Your task to perform on an android device: change your default location settings in chrome Image 0: 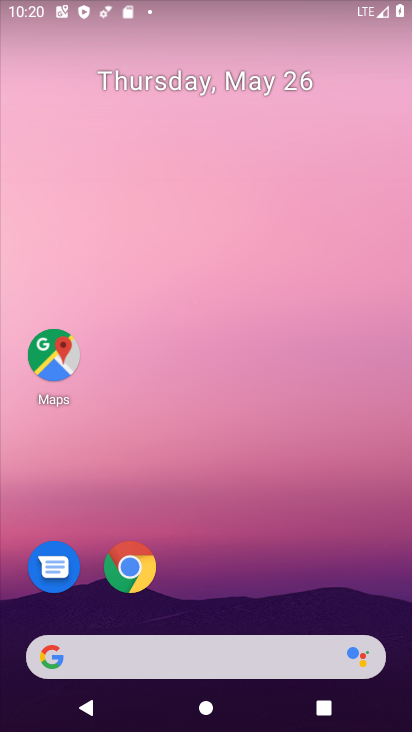
Step 0: click (123, 568)
Your task to perform on an android device: change your default location settings in chrome Image 1: 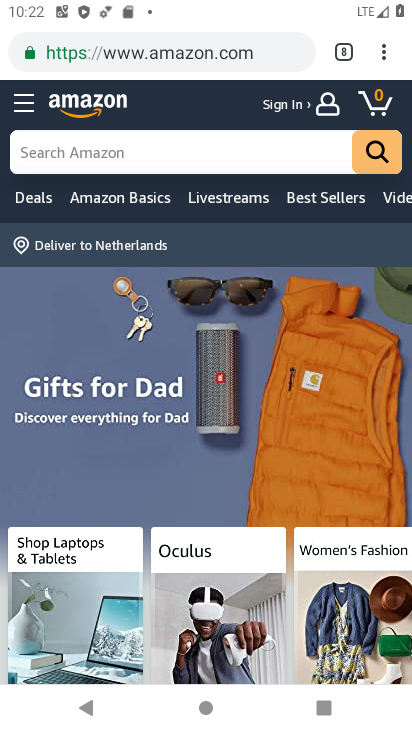
Step 1: click (381, 46)
Your task to perform on an android device: change your default location settings in chrome Image 2: 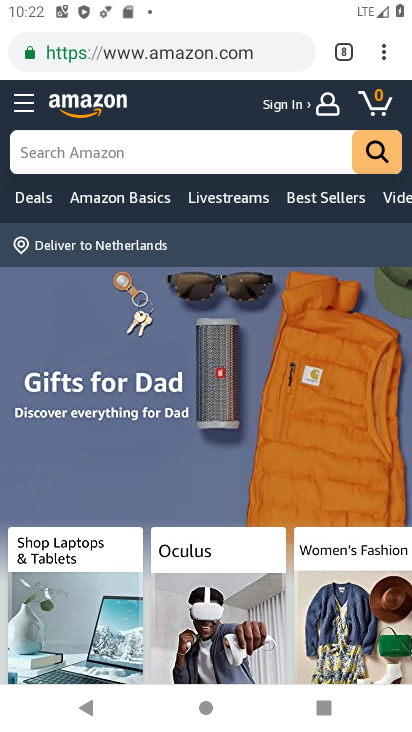
Step 2: click (378, 41)
Your task to perform on an android device: change your default location settings in chrome Image 3: 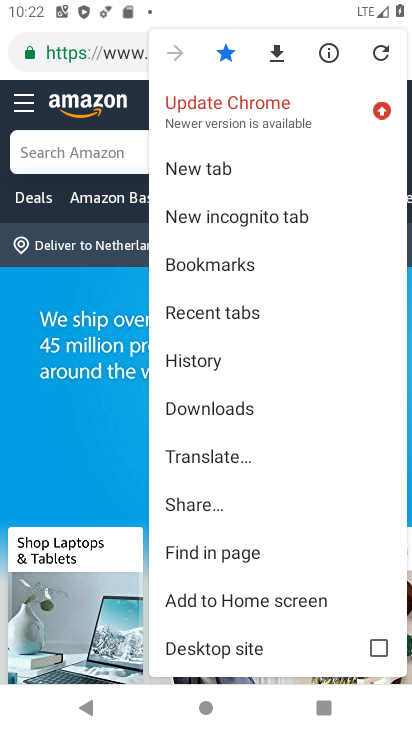
Step 3: drag from (263, 614) to (263, 57)
Your task to perform on an android device: change your default location settings in chrome Image 4: 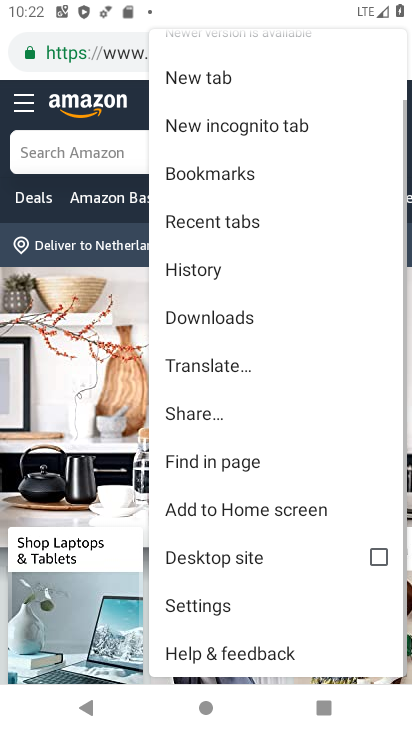
Step 4: click (225, 605)
Your task to perform on an android device: change your default location settings in chrome Image 5: 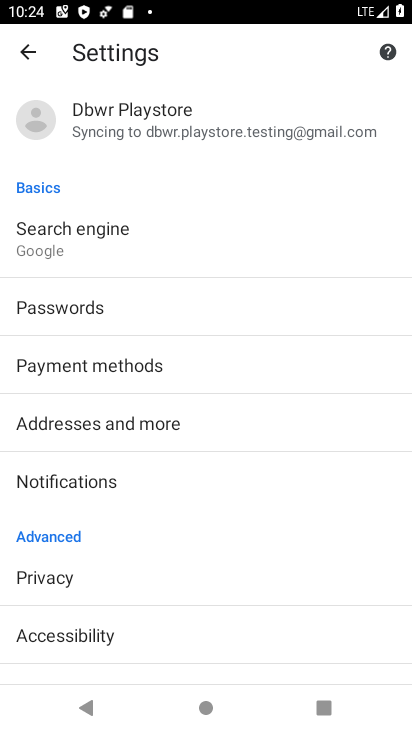
Step 5: drag from (175, 569) to (229, 143)
Your task to perform on an android device: change your default location settings in chrome Image 6: 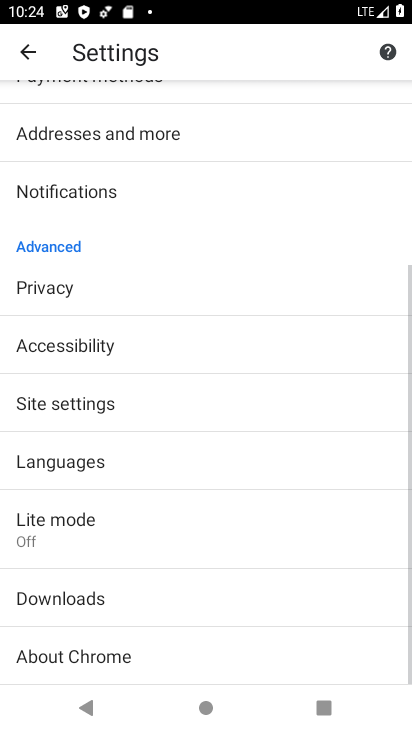
Step 6: click (169, 403)
Your task to perform on an android device: change your default location settings in chrome Image 7: 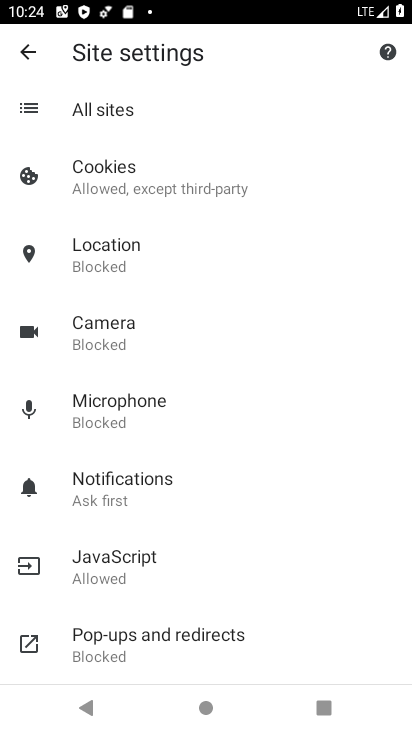
Step 7: click (116, 251)
Your task to perform on an android device: change your default location settings in chrome Image 8: 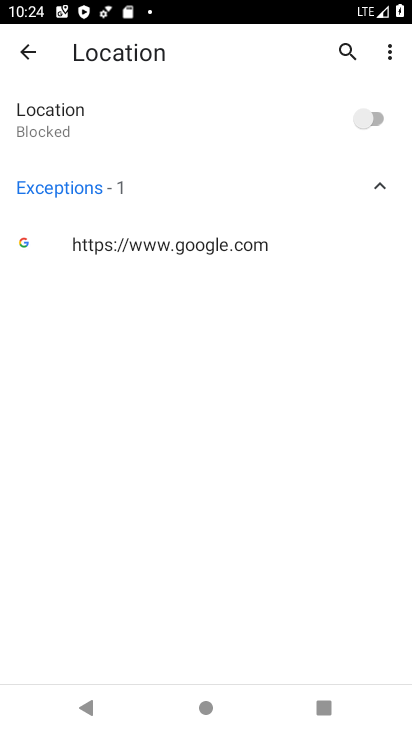
Step 8: click (381, 115)
Your task to perform on an android device: change your default location settings in chrome Image 9: 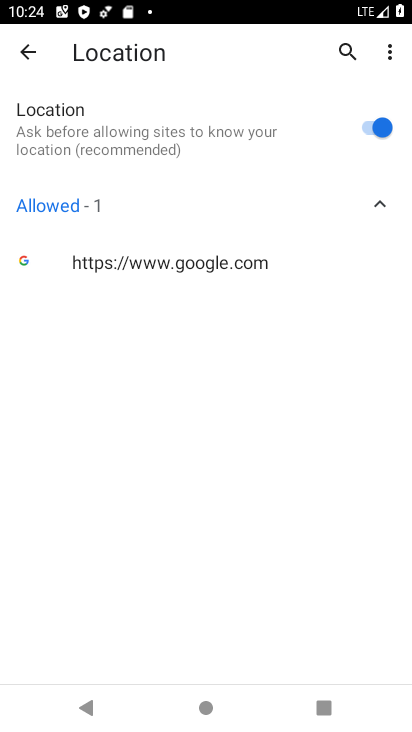
Step 9: task complete